Your task to perform on an android device: choose inbox layout in the gmail app Image 0: 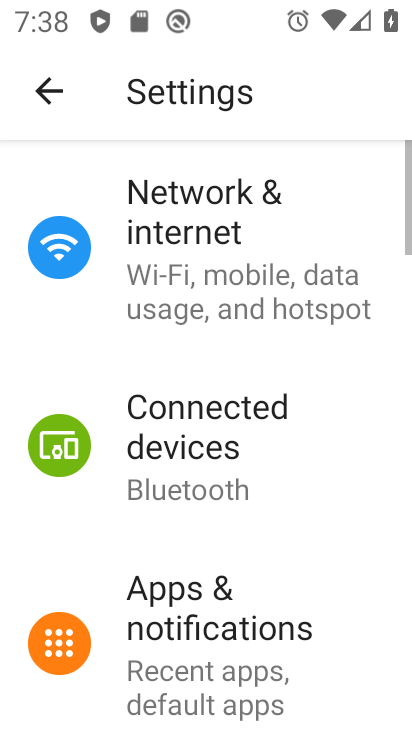
Step 0: press home button
Your task to perform on an android device: choose inbox layout in the gmail app Image 1: 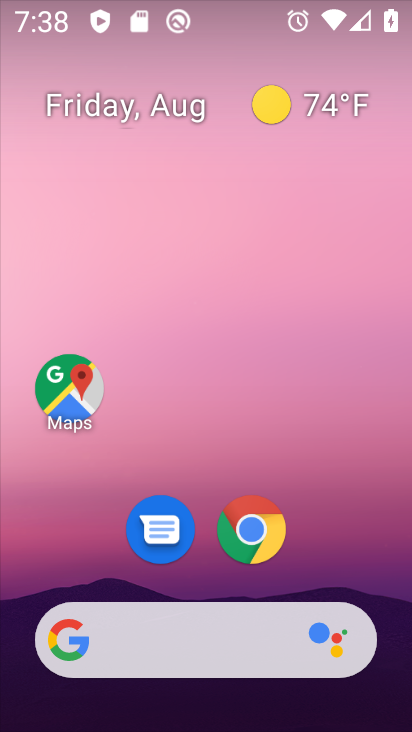
Step 1: drag from (130, 643) to (267, 127)
Your task to perform on an android device: choose inbox layout in the gmail app Image 2: 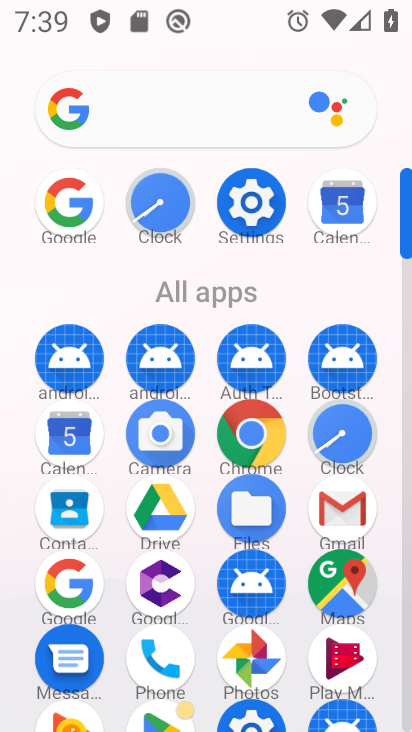
Step 2: click (343, 505)
Your task to perform on an android device: choose inbox layout in the gmail app Image 3: 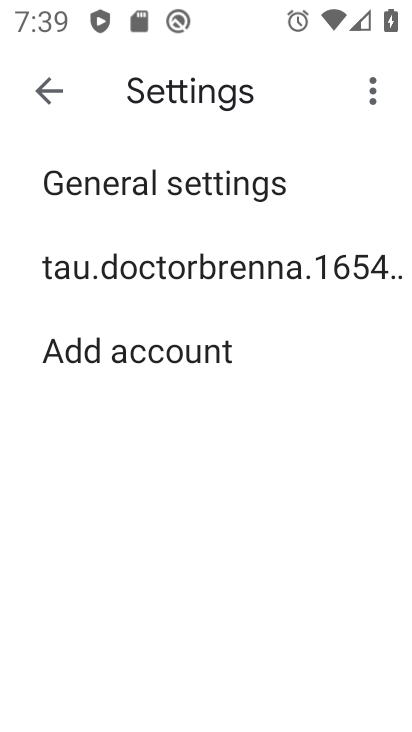
Step 3: press back button
Your task to perform on an android device: choose inbox layout in the gmail app Image 4: 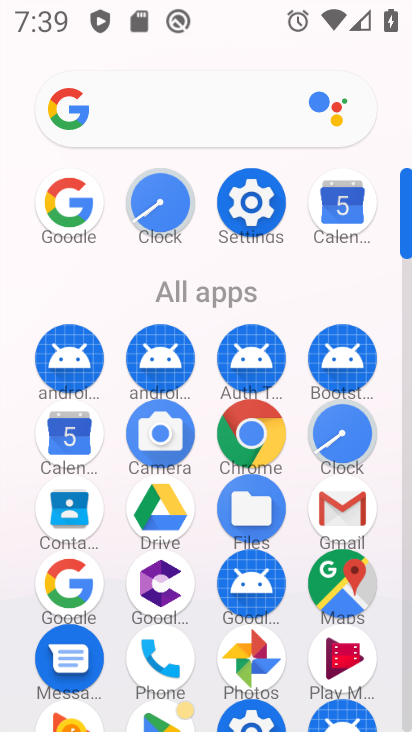
Step 4: click (339, 508)
Your task to perform on an android device: choose inbox layout in the gmail app Image 5: 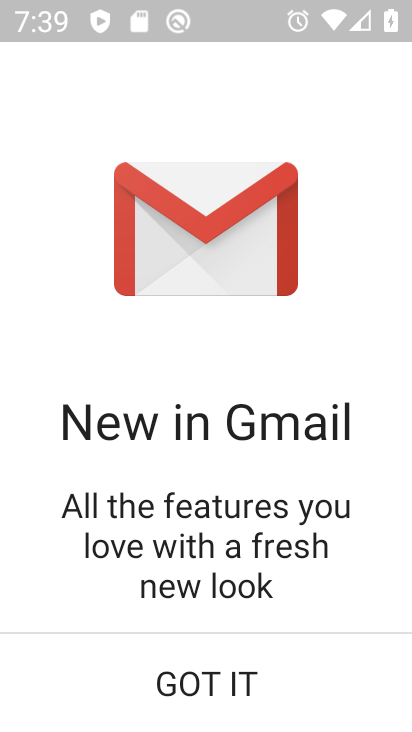
Step 5: click (232, 693)
Your task to perform on an android device: choose inbox layout in the gmail app Image 6: 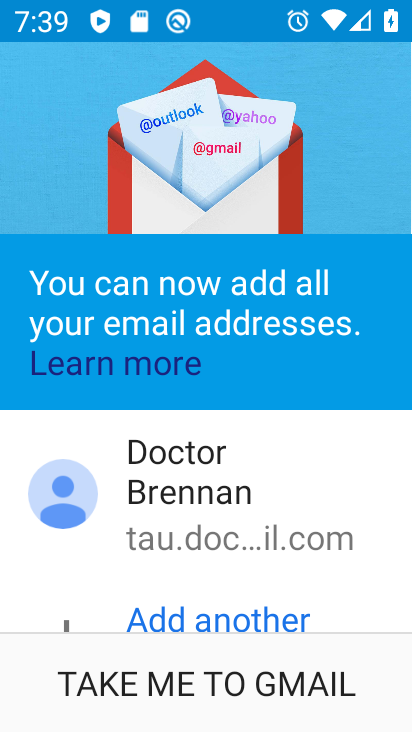
Step 6: click (232, 693)
Your task to perform on an android device: choose inbox layout in the gmail app Image 7: 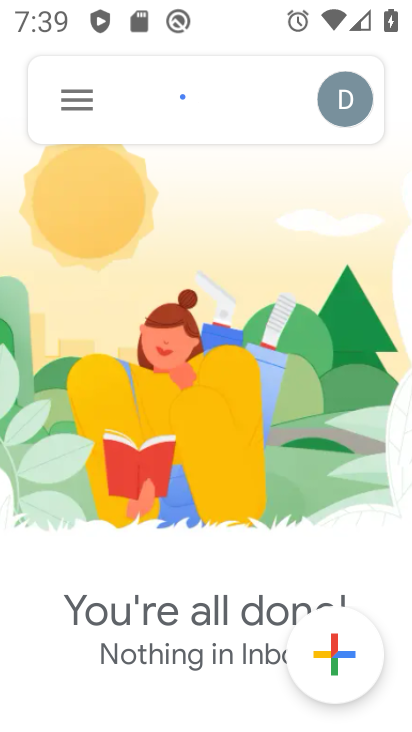
Step 7: click (62, 107)
Your task to perform on an android device: choose inbox layout in the gmail app Image 8: 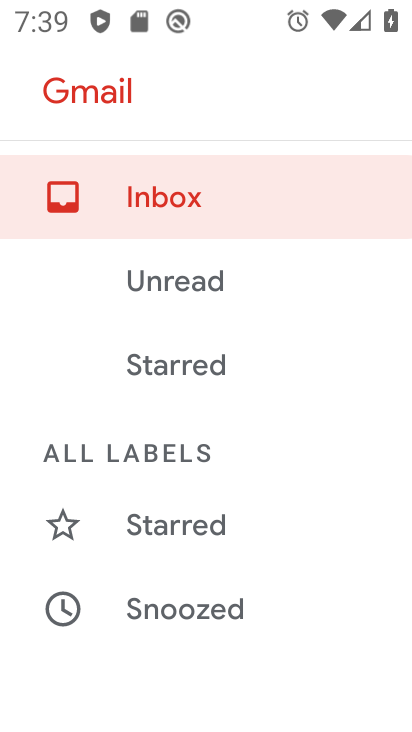
Step 8: drag from (175, 400) to (233, 301)
Your task to perform on an android device: choose inbox layout in the gmail app Image 9: 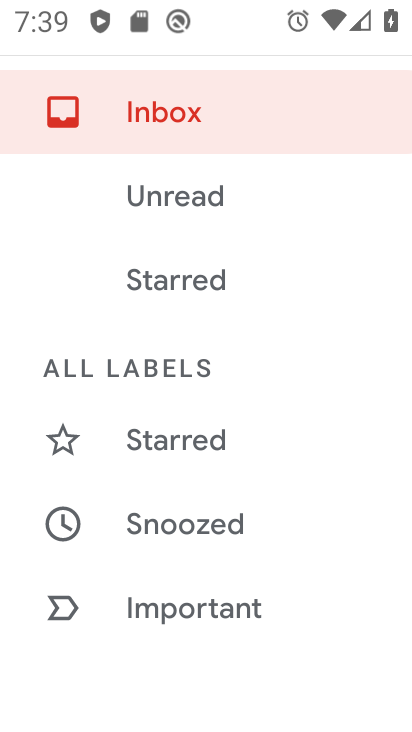
Step 9: drag from (183, 489) to (275, 327)
Your task to perform on an android device: choose inbox layout in the gmail app Image 10: 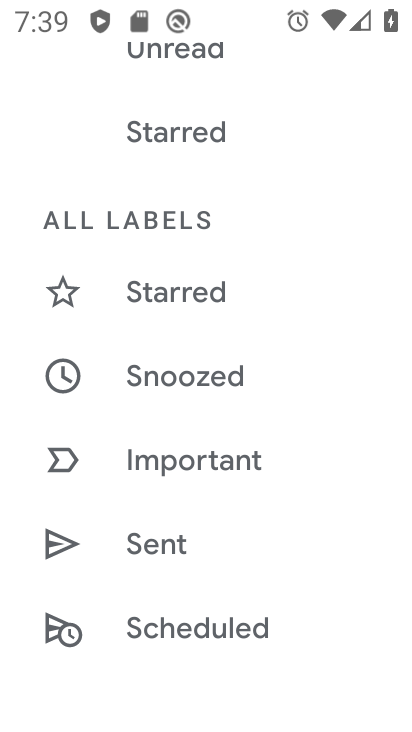
Step 10: drag from (243, 589) to (290, 461)
Your task to perform on an android device: choose inbox layout in the gmail app Image 11: 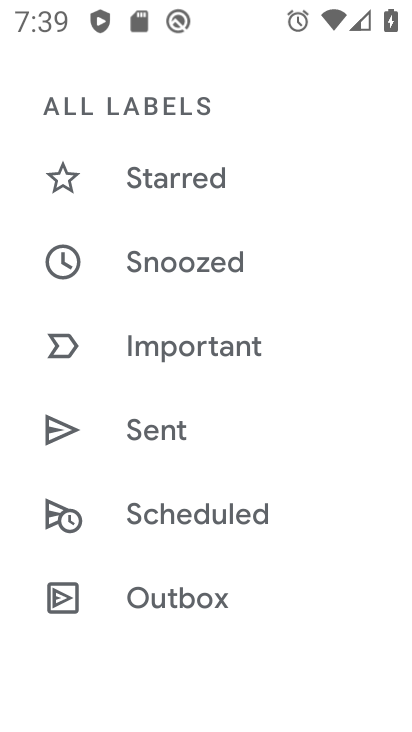
Step 11: drag from (216, 571) to (259, 454)
Your task to perform on an android device: choose inbox layout in the gmail app Image 12: 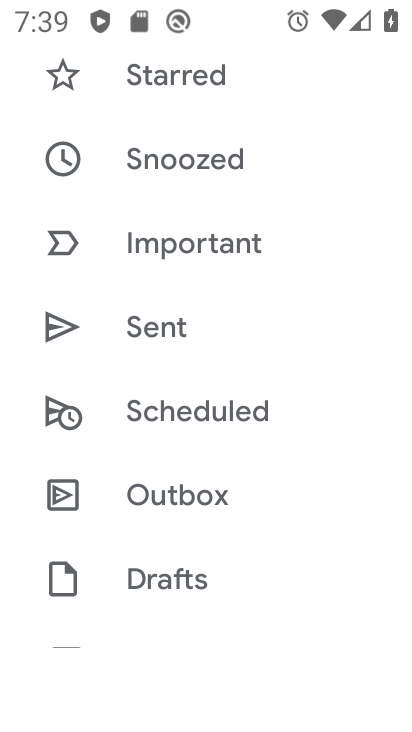
Step 12: drag from (166, 562) to (198, 451)
Your task to perform on an android device: choose inbox layout in the gmail app Image 13: 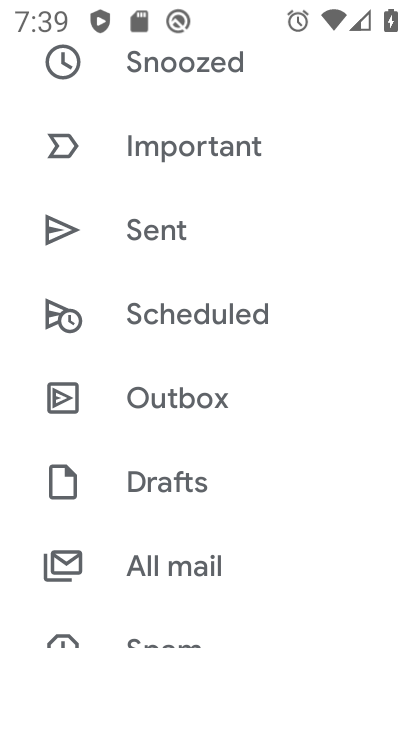
Step 13: drag from (187, 523) to (240, 426)
Your task to perform on an android device: choose inbox layout in the gmail app Image 14: 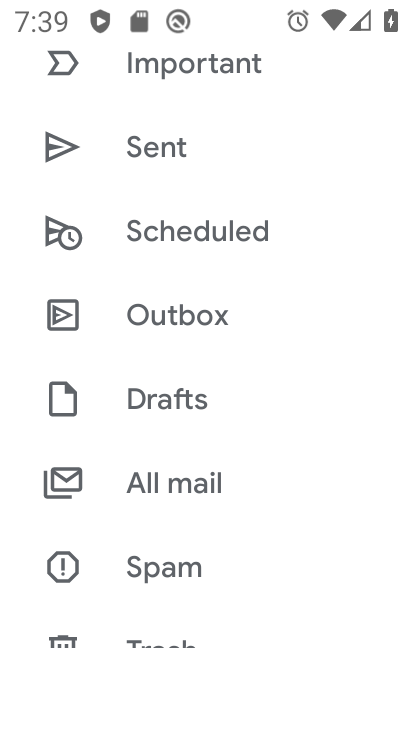
Step 14: drag from (198, 536) to (263, 428)
Your task to perform on an android device: choose inbox layout in the gmail app Image 15: 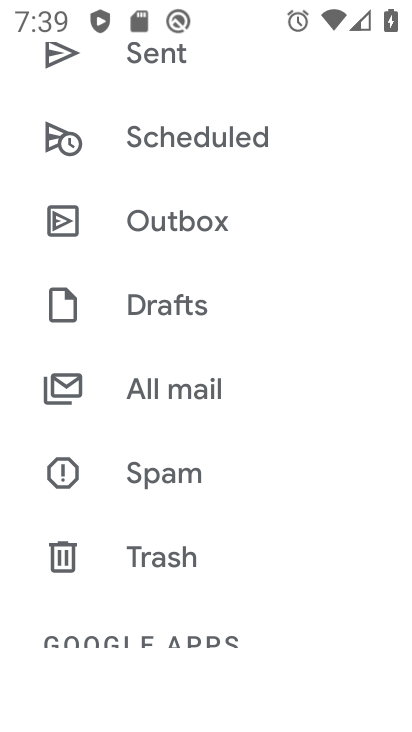
Step 15: drag from (156, 581) to (190, 459)
Your task to perform on an android device: choose inbox layout in the gmail app Image 16: 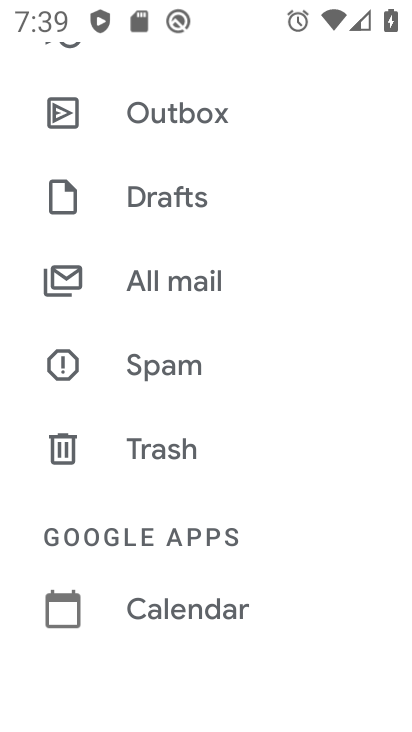
Step 16: drag from (199, 581) to (220, 452)
Your task to perform on an android device: choose inbox layout in the gmail app Image 17: 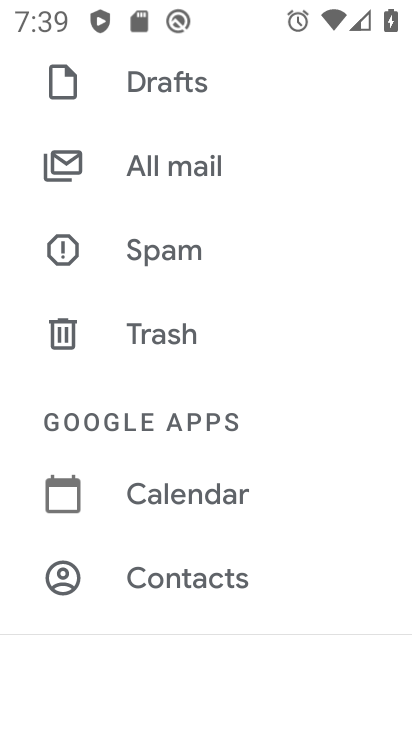
Step 17: drag from (193, 542) to (267, 423)
Your task to perform on an android device: choose inbox layout in the gmail app Image 18: 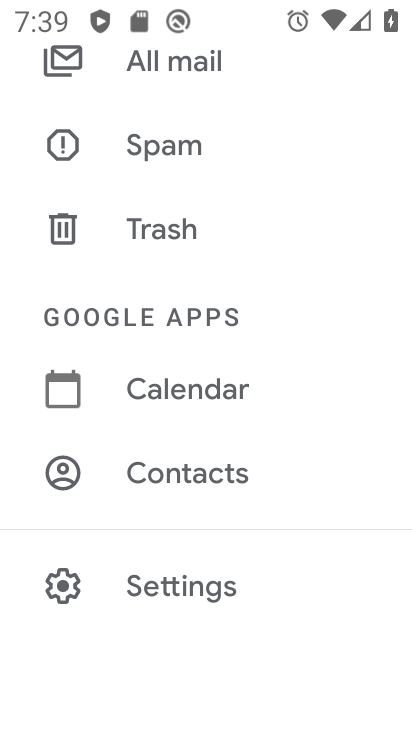
Step 18: click (170, 584)
Your task to perform on an android device: choose inbox layout in the gmail app Image 19: 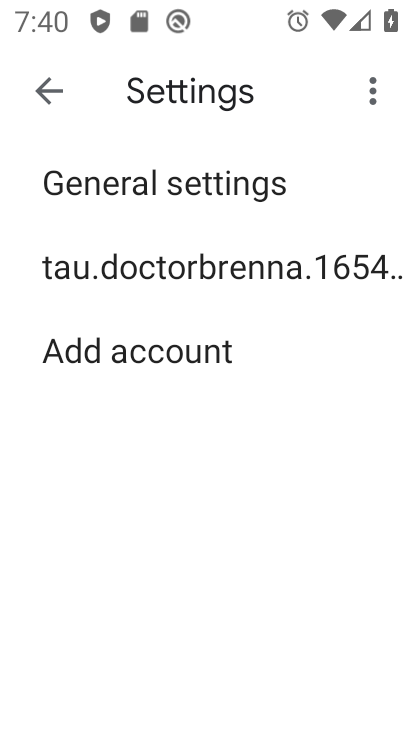
Step 19: click (180, 263)
Your task to perform on an android device: choose inbox layout in the gmail app Image 20: 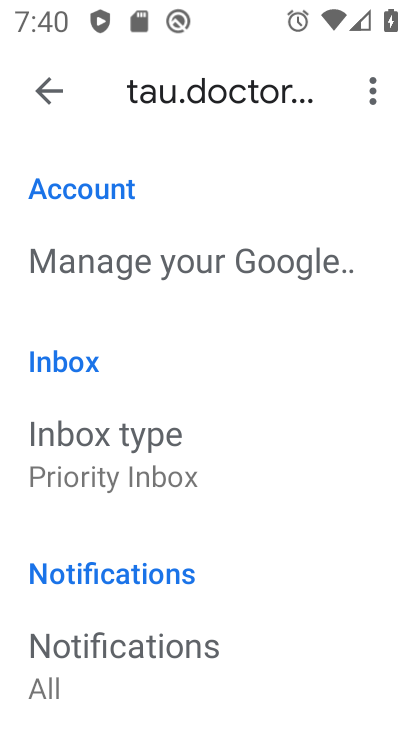
Step 20: click (142, 442)
Your task to perform on an android device: choose inbox layout in the gmail app Image 21: 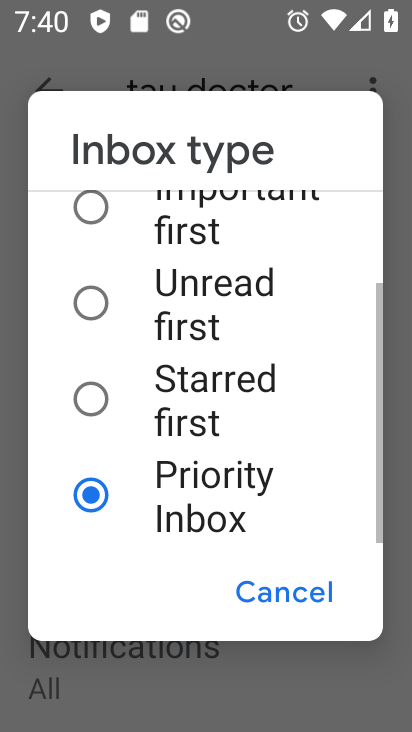
Step 21: click (103, 395)
Your task to perform on an android device: choose inbox layout in the gmail app Image 22: 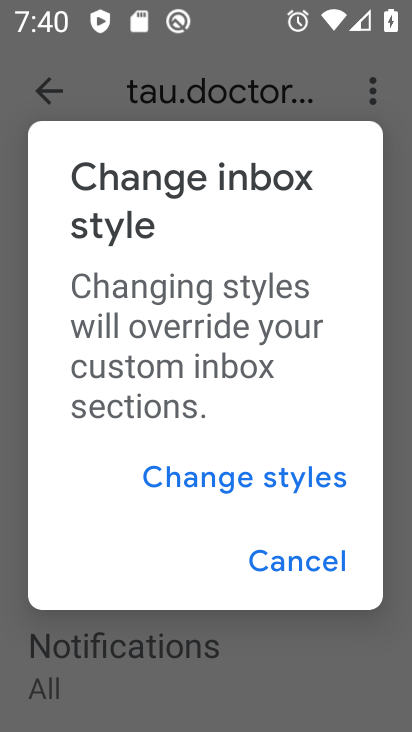
Step 22: click (288, 474)
Your task to perform on an android device: choose inbox layout in the gmail app Image 23: 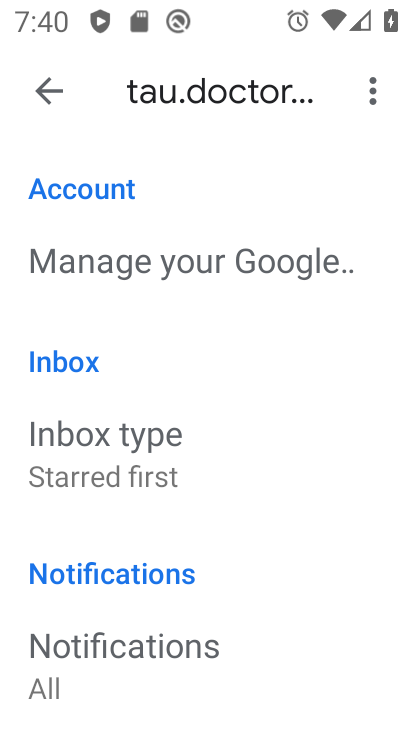
Step 23: task complete